Your task to perform on an android device: Search for pizza restaurants on Maps Image 0: 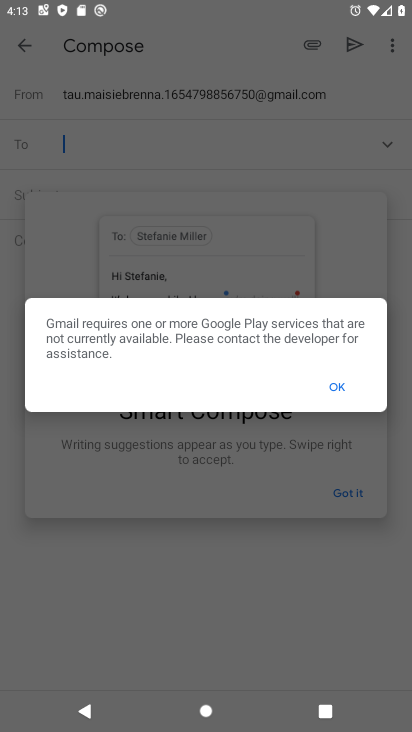
Step 0: press home button
Your task to perform on an android device: Search for pizza restaurants on Maps Image 1: 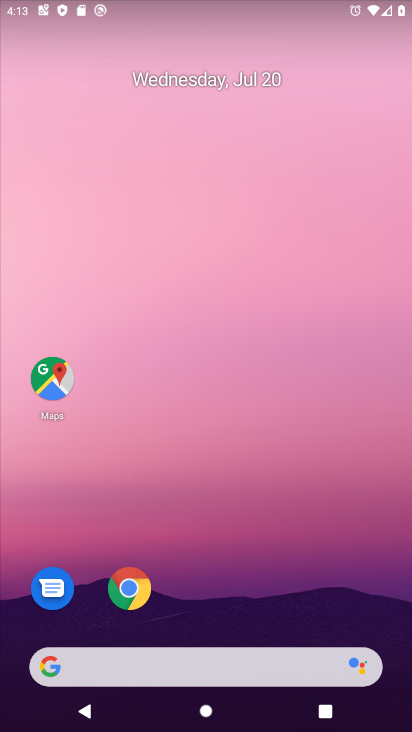
Step 1: drag from (249, 630) to (267, 134)
Your task to perform on an android device: Search for pizza restaurants on Maps Image 2: 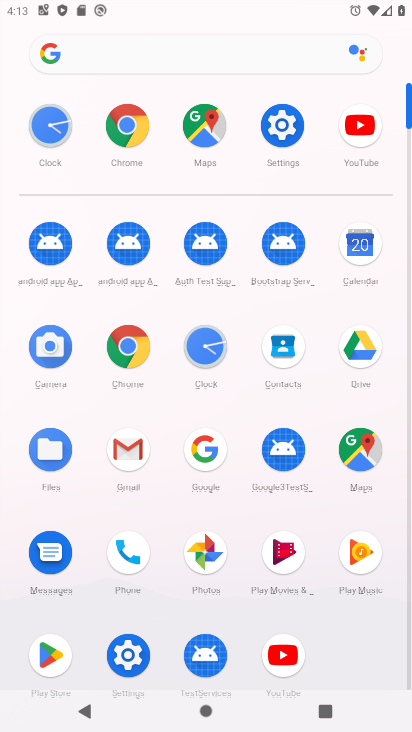
Step 2: click (366, 451)
Your task to perform on an android device: Search for pizza restaurants on Maps Image 3: 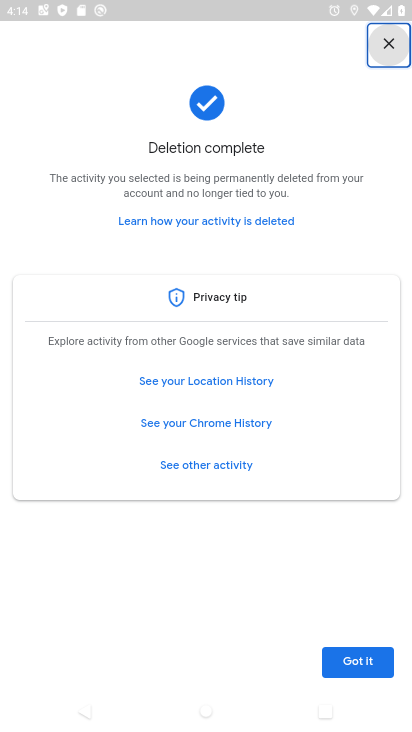
Step 3: click (360, 664)
Your task to perform on an android device: Search for pizza restaurants on Maps Image 4: 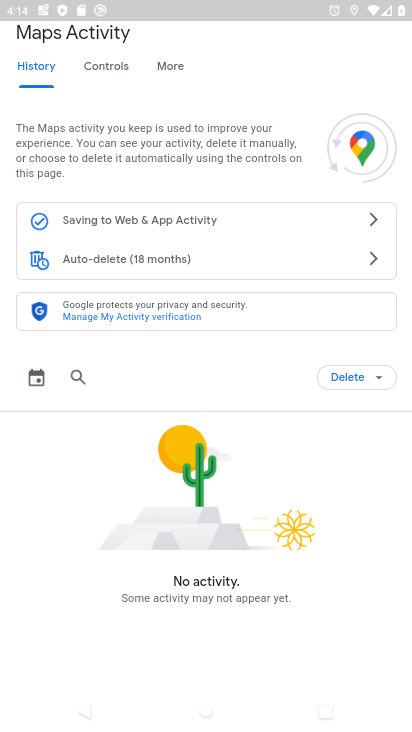
Step 4: press back button
Your task to perform on an android device: Search for pizza restaurants on Maps Image 5: 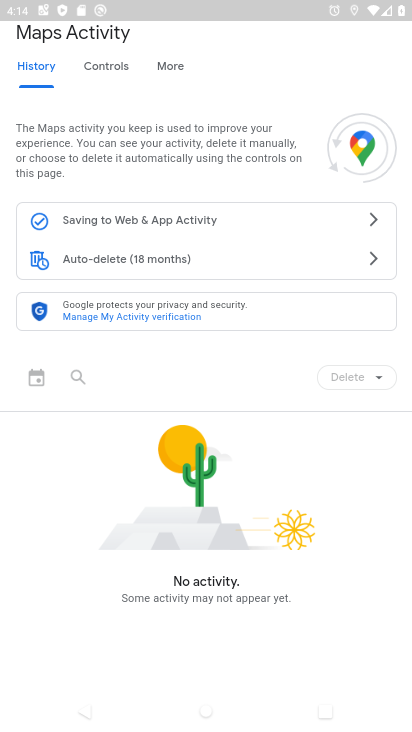
Step 5: press back button
Your task to perform on an android device: Search for pizza restaurants on Maps Image 6: 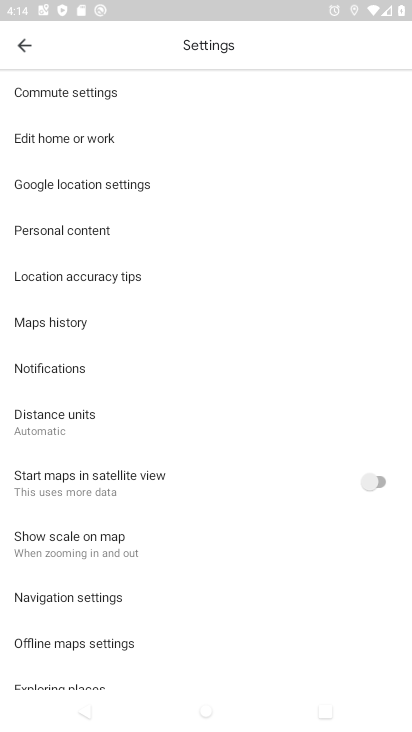
Step 6: press back button
Your task to perform on an android device: Search for pizza restaurants on Maps Image 7: 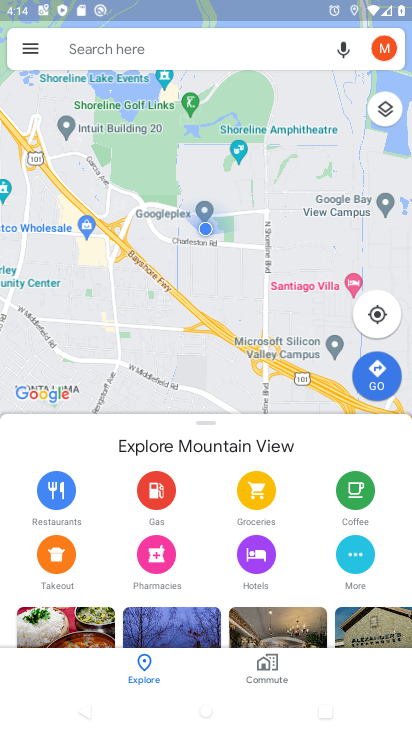
Step 7: click (212, 43)
Your task to perform on an android device: Search for pizza restaurants on Maps Image 8: 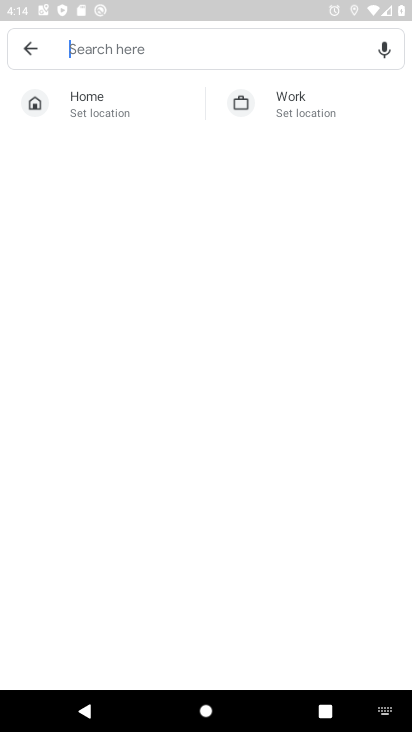
Step 8: type "pizza resturants"
Your task to perform on an android device: Search for pizza restaurants on Maps Image 9: 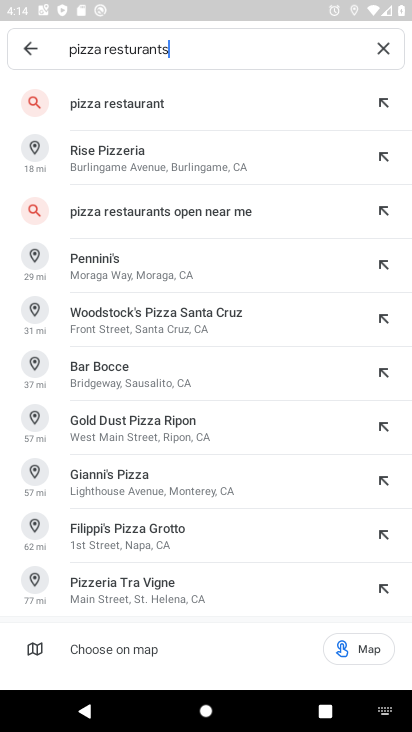
Step 9: press enter
Your task to perform on an android device: Search for pizza restaurants on Maps Image 10: 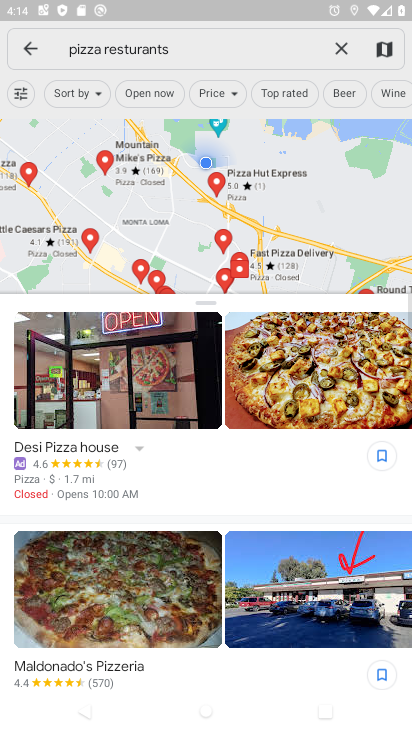
Step 10: task complete